Your task to perform on an android device: Open Wikipedia Image 0: 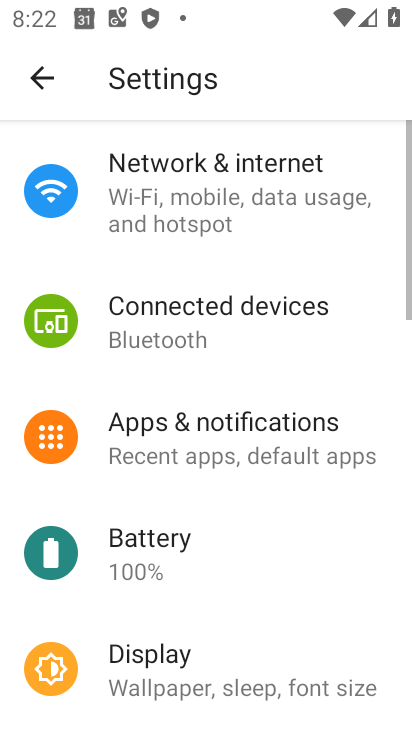
Step 0: press home button
Your task to perform on an android device: Open Wikipedia Image 1: 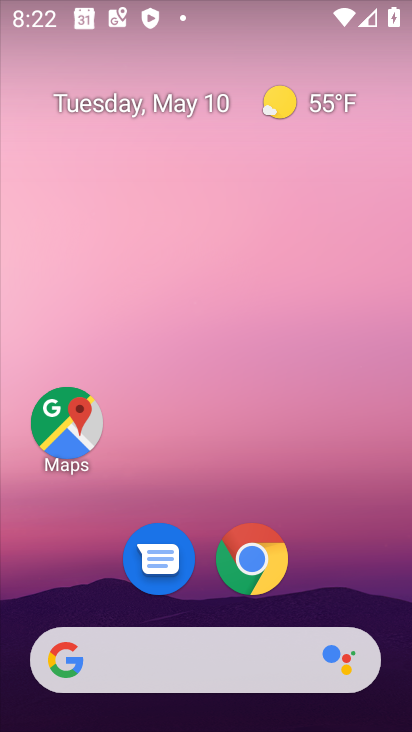
Step 1: click (251, 567)
Your task to perform on an android device: Open Wikipedia Image 2: 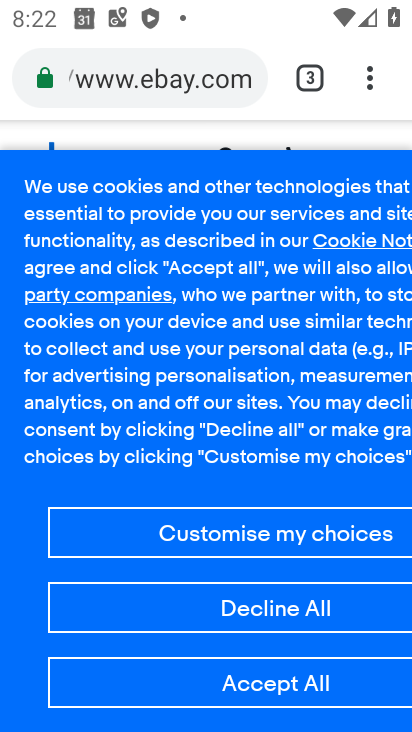
Step 2: click (372, 89)
Your task to perform on an android device: Open Wikipedia Image 3: 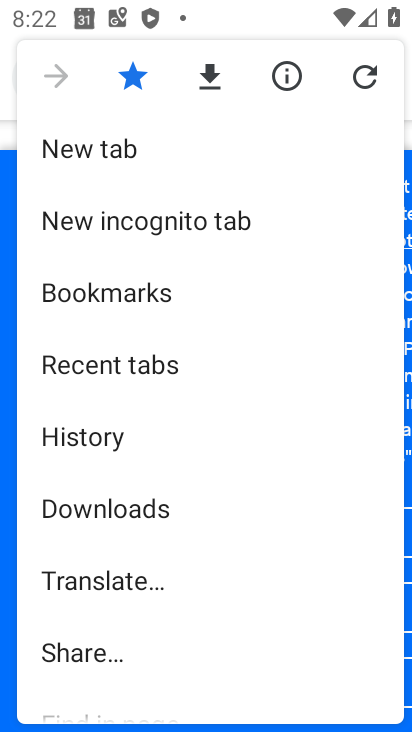
Step 3: click (102, 147)
Your task to perform on an android device: Open Wikipedia Image 4: 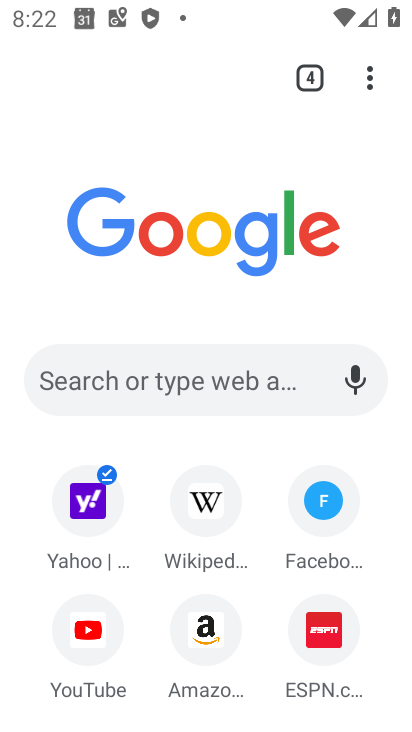
Step 4: click (209, 505)
Your task to perform on an android device: Open Wikipedia Image 5: 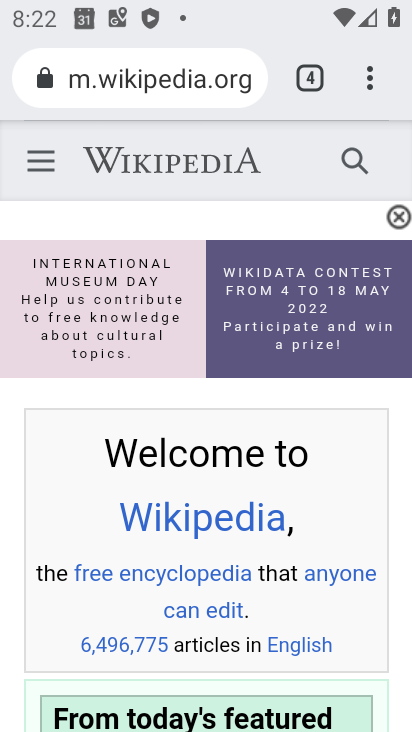
Step 5: task complete